Your task to perform on an android device: clear all cookies in the chrome app Image 0: 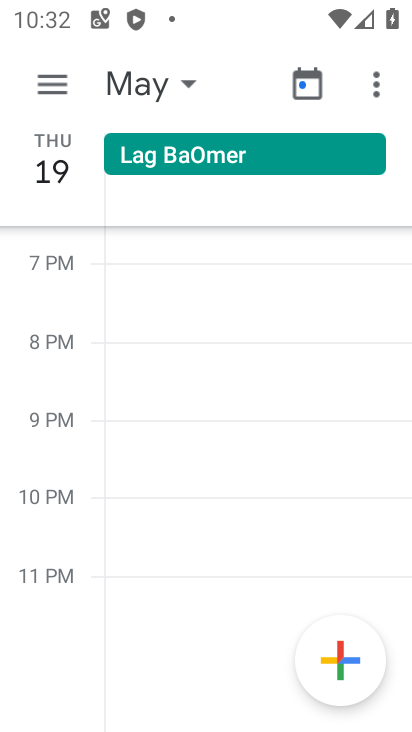
Step 0: press home button
Your task to perform on an android device: clear all cookies in the chrome app Image 1: 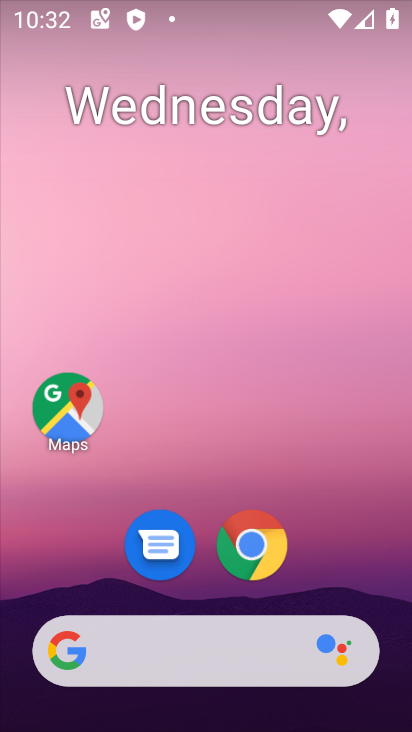
Step 1: click (271, 535)
Your task to perform on an android device: clear all cookies in the chrome app Image 2: 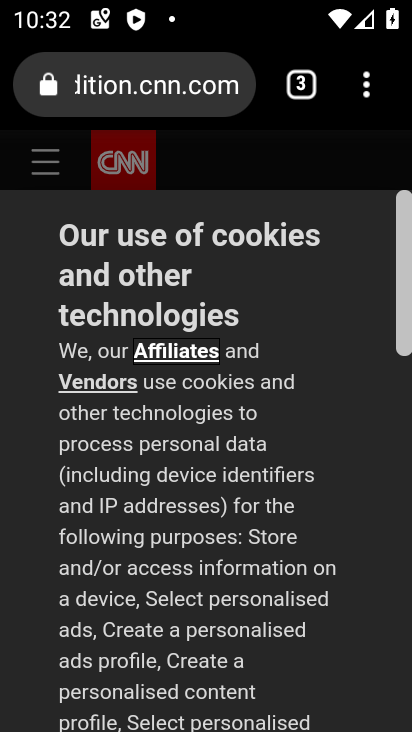
Step 2: click (362, 85)
Your task to perform on an android device: clear all cookies in the chrome app Image 3: 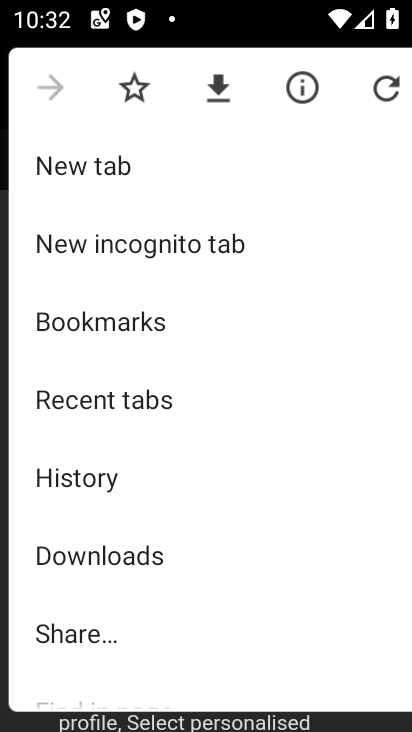
Step 3: click (79, 464)
Your task to perform on an android device: clear all cookies in the chrome app Image 4: 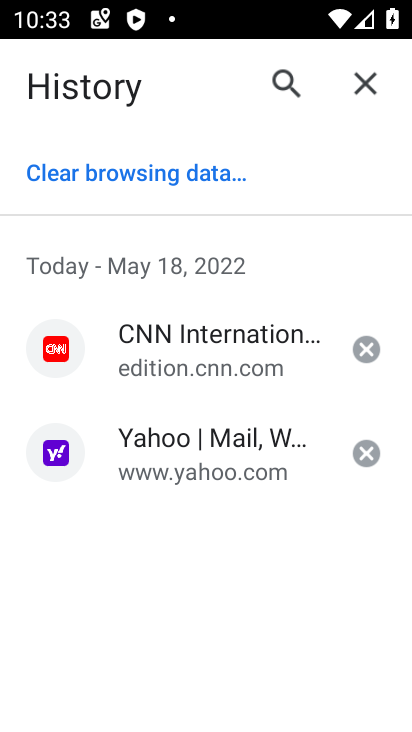
Step 4: click (204, 168)
Your task to perform on an android device: clear all cookies in the chrome app Image 5: 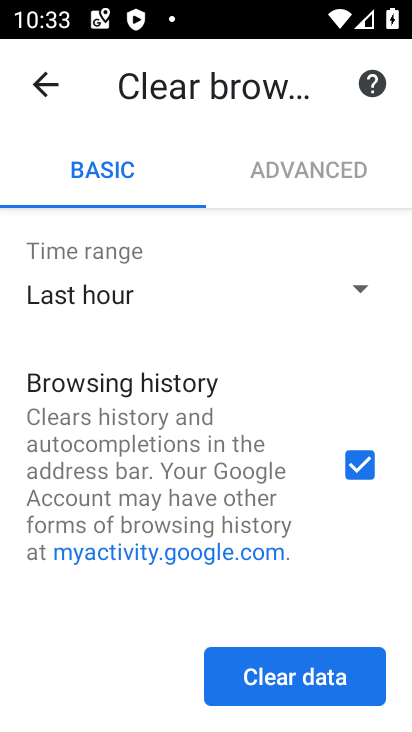
Step 5: click (323, 676)
Your task to perform on an android device: clear all cookies in the chrome app Image 6: 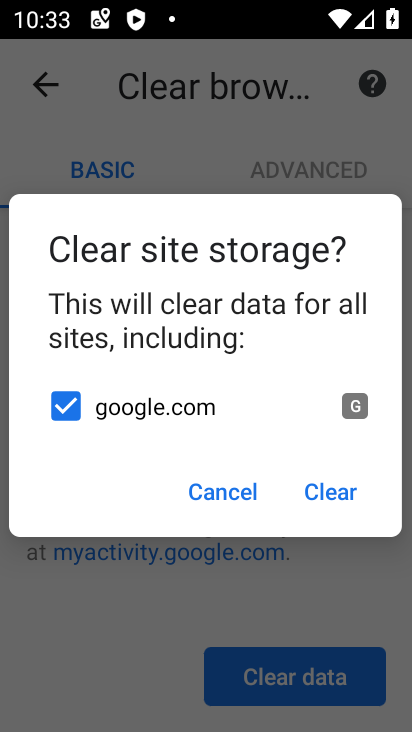
Step 6: click (354, 479)
Your task to perform on an android device: clear all cookies in the chrome app Image 7: 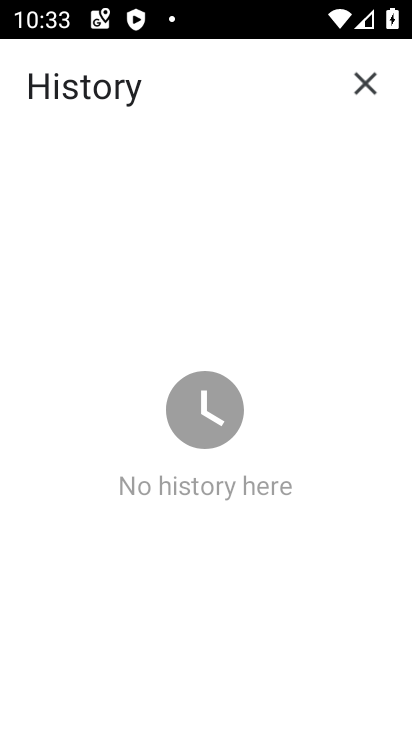
Step 7: task complete